Your task to perform on an android device: check out phone information Image 0: 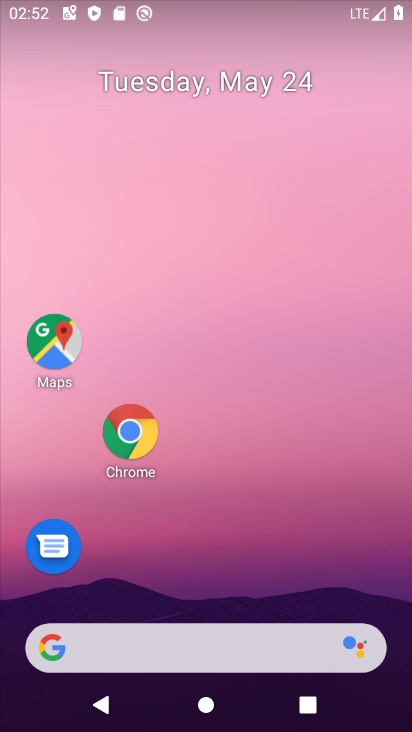
Step 0: drag from (237, 551) to (343, 75)
Your task to perform on an android device: check out phone information Image 1: 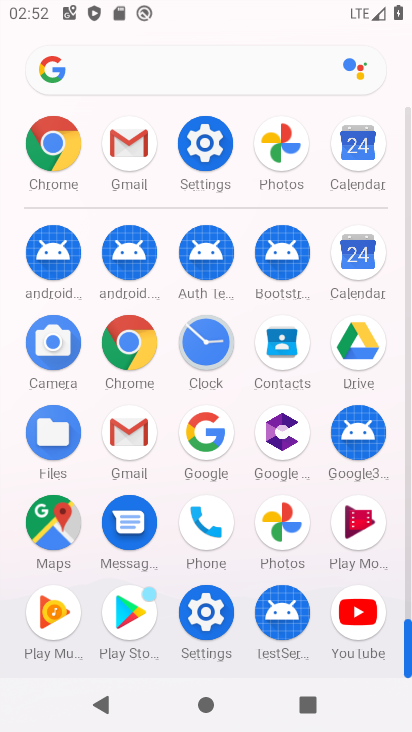
Step 1: click (219, 124)
Your task to perform on an android device: check out phone information Image 2: 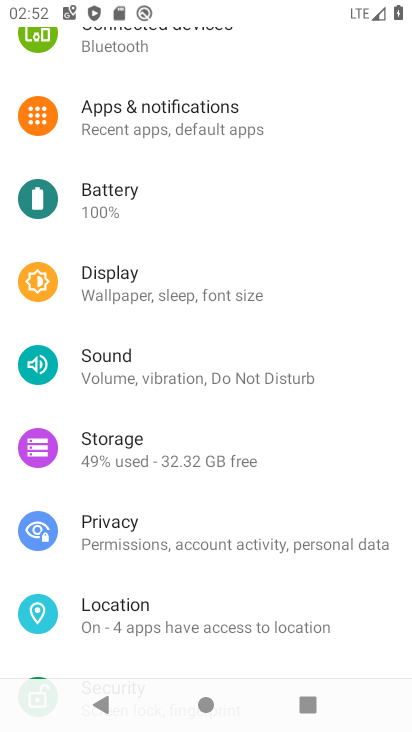
Step 2: drag from (188, 600) to (272, 356)
Your task to perform on an android device: check out phone information Image 3: 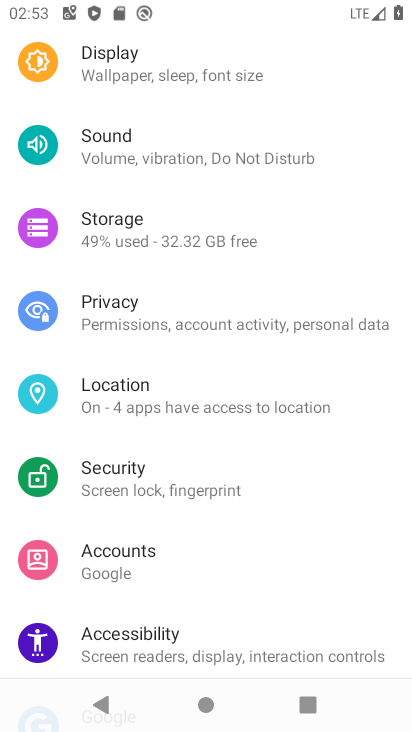
Step 3: drag from (192, 590) to (307, 0)
Your task to perform on an android device: check out phone information Image 4: 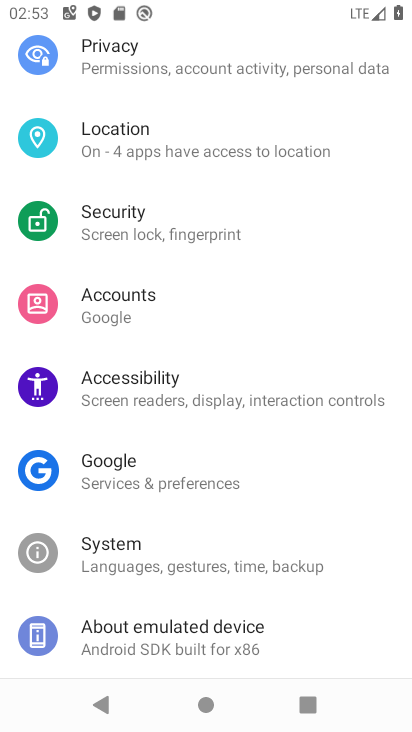
Step 4: click (120, 631)
Your task to perform on an android device: check out phone information Image 5: 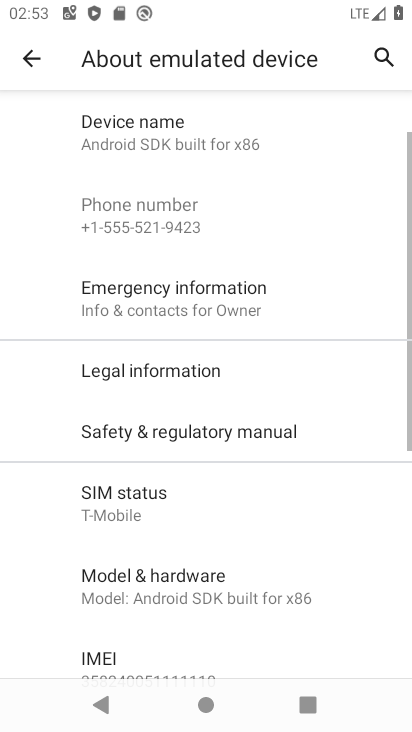
Step 5: task complete